Your task to perform on an android device: Open Google Chrome and click the shortcut for Amazon.com Image 0: 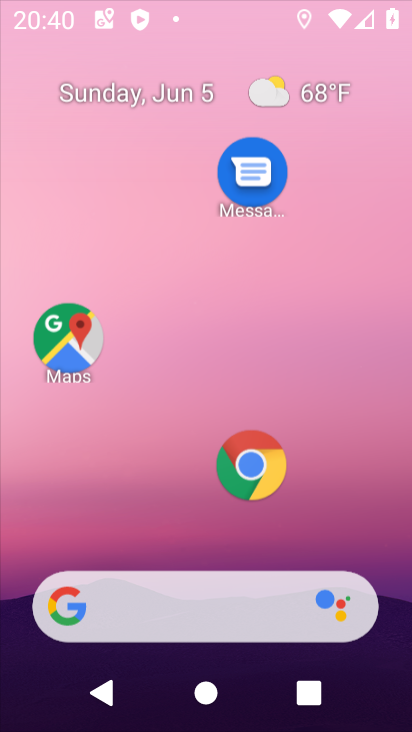
Step 0: click (11, 170)
Your task to perform on an android device: Open Google Chrome and click the shortcut for Amazon.com Image 1: 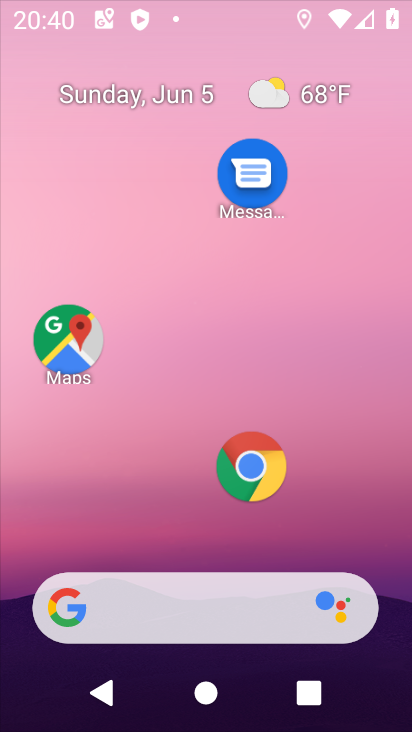
Step 1: drag from (206, 472) to (179, 8)
Your task to perform on an android device: Open Google Chrome and click the shortcut for Amazon.com Image 2: 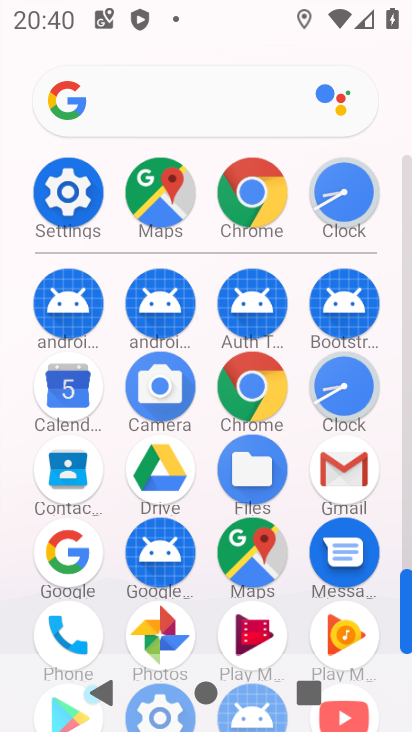
Step 2: click (269, 378)
Your task to perform on an android device: Open Google Chrome and click the shortcut for Amazon.com Image 3: 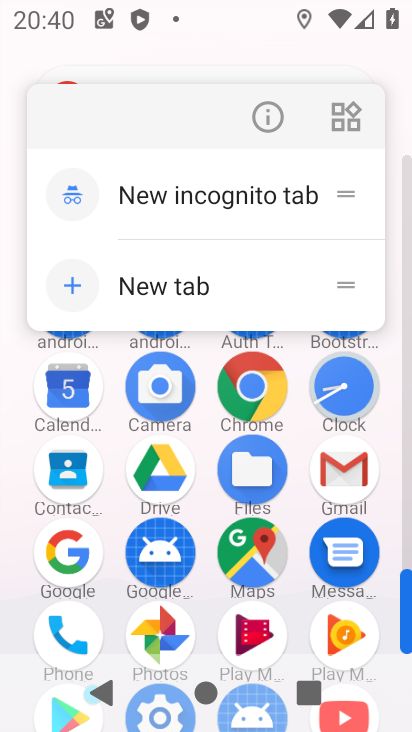
Step 3: click (273, 124)
Your task to perform on an android device: Open Google Chrome and click the shortcut for Amazon.com Image 4: 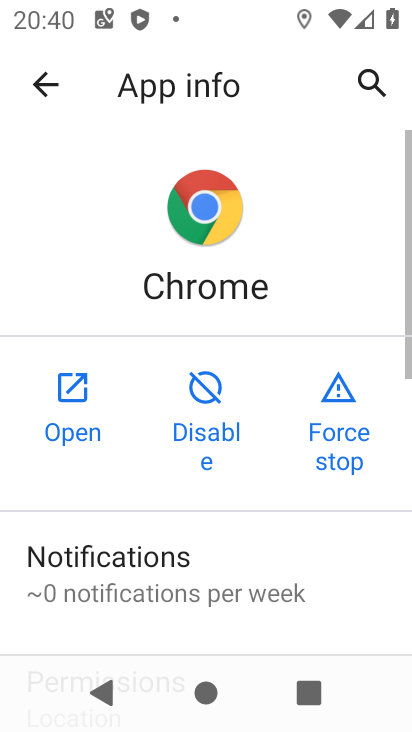
Step 4: click (83, 387)
Your task to perform on an android device: Open Google Chrome and click the shortcut for Amazon.com Image 5: 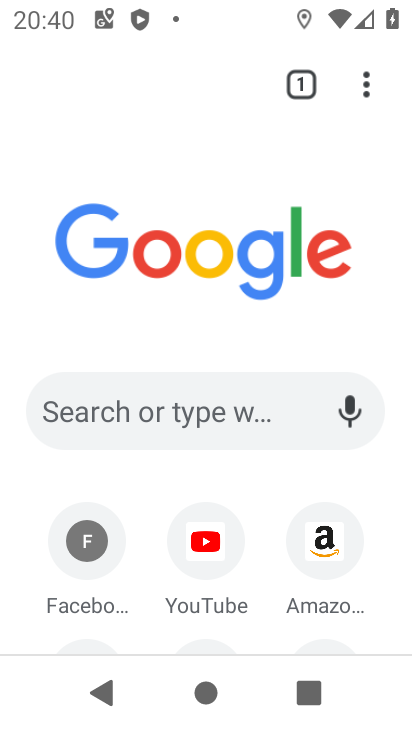
Step 5: drag from (242, 449) to (237, 194)
Your task to perform on an android device: Open Google Chrome and click the shortcut for Amazon.com Image 6: 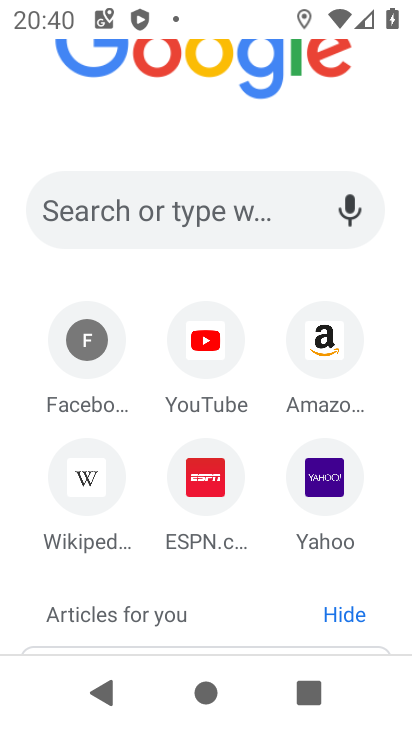
Step 6: drag from (239, 153) to (351, 727)
Your task to perform on an android device: Open Google Chrome and click the shortcut for Amazon.com Image 7: 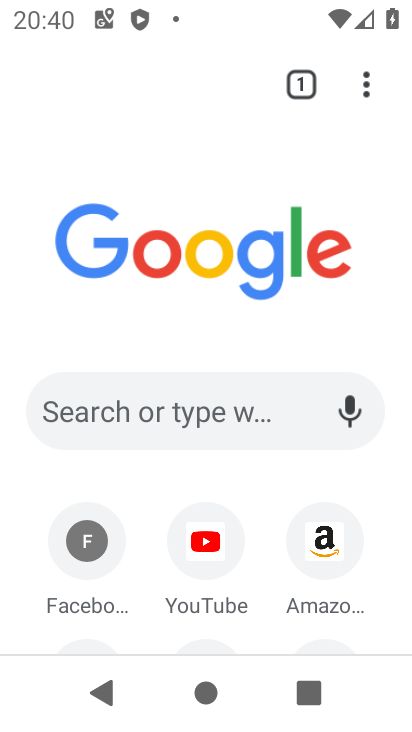
Step 7: click (366, 89)
Your task to perform on an android device: Open Google Chrome and click the shortcut for Amazon.com Image 8: 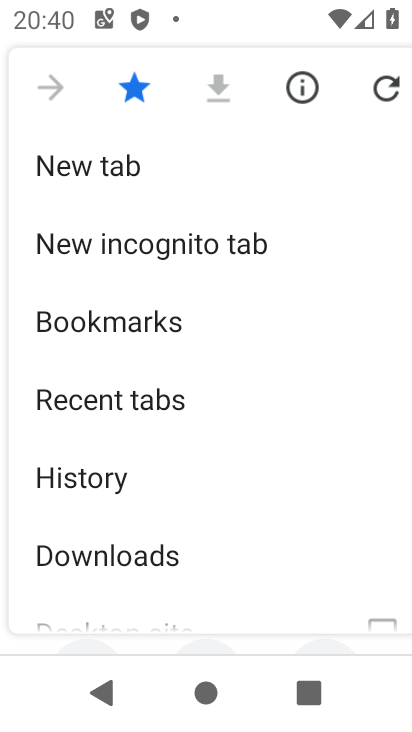
Step 8: drag from (187, 521) to (229, 148)
Your task to perform on an android device: Open Google Chrome and click the shortcut for Amazon.com Image 9: 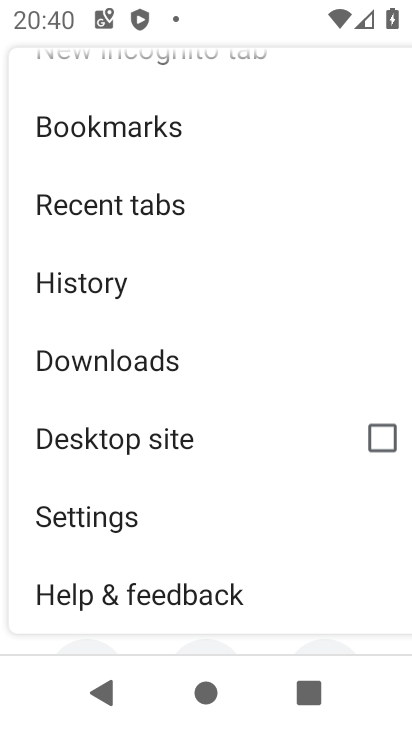
Step 9: drag from (174, 558) to (297, 165)
Your task to perform on an android device: Open Google Chrome and click the shortcut for Amazon.com Image 10: 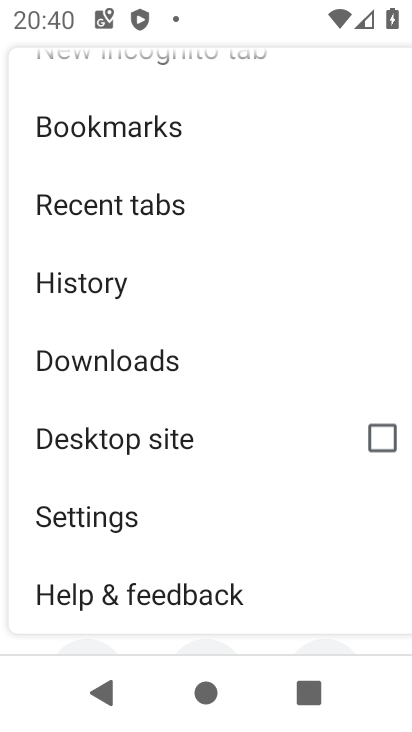
Step 10: drag from (206, 536) to (273, 243)
Your task to perform on an android device: Open Google Chrome and click the shortcut for Amazon.com Image 11: 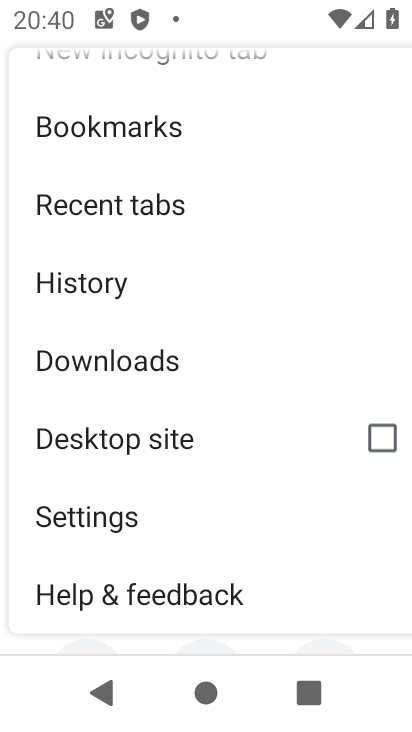
Step 11: drag from (216, 258) to (404, 470)
Your task to perform on an android device: Open Google Chrome and click the shortcut for Amazon.com Image 12: 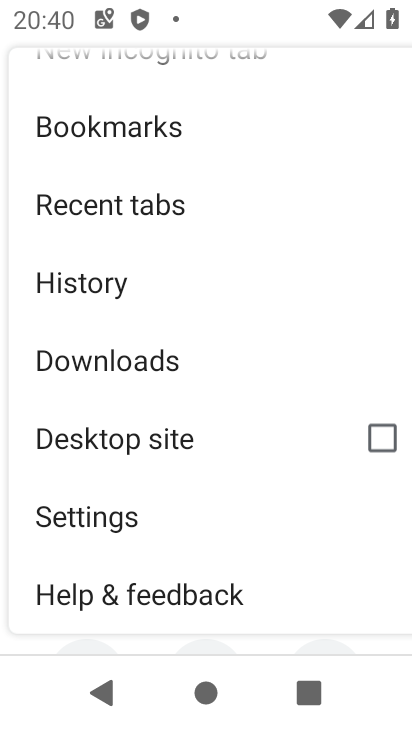
Step 12: click (47, 79)
Your task to perform on an android device: Open Google Chrome and click the shortcut for Amazon.com Image 13: 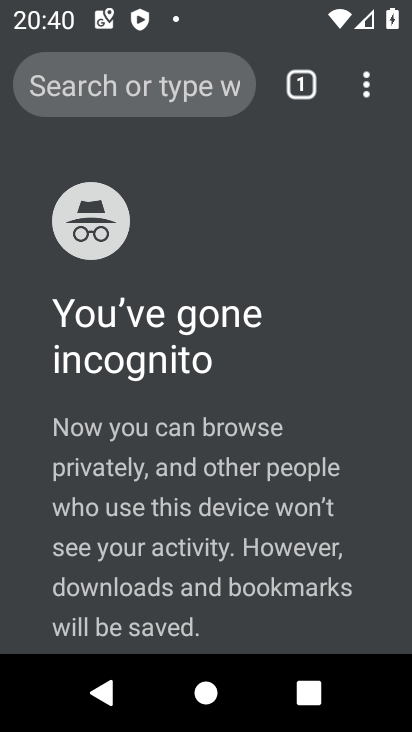
Step 13: click (315, 84)
Your task to perform on an android device: Open Google Chrome and click the shortcut for Amazon.com Image 14: 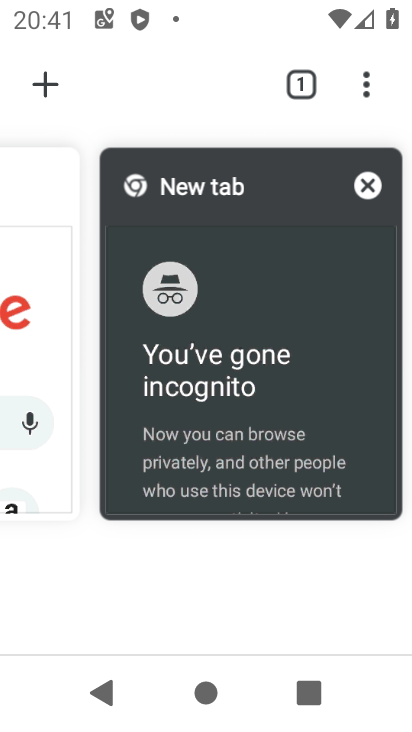
Step 14: click (367, 185)
Your task to perform on an android device: Open Google Chrome and click the shortcut for Amazon.com Image 15: 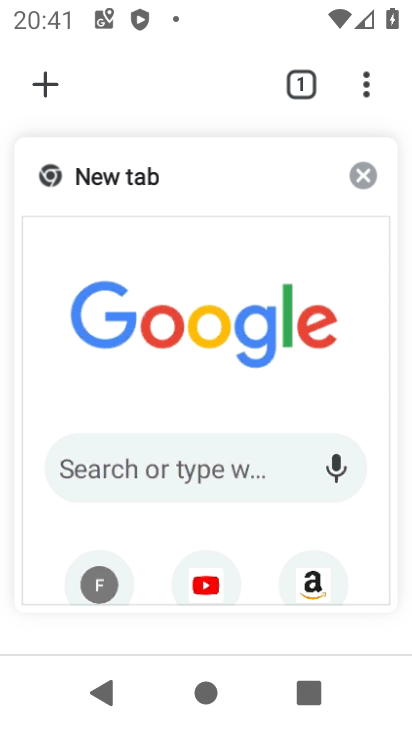
Step 15: click (252, 390)
Your task to perform on an android device: Open Google Chrome and click the shortcut for Amazon.com Image 16: 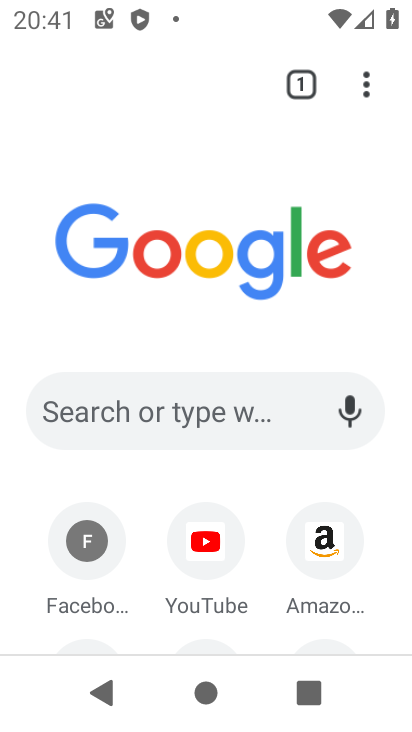
Step 16: drag from (246, 401) to (375, 18)
Your task to perform on an android device: Open Google Chrome and click the shortcut for Amazon.com Image 17: 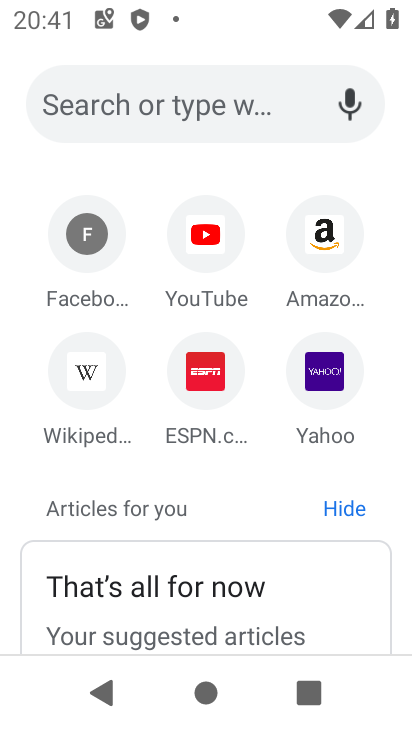
Step 17: click (323, 229)
Your task to perform on an android device: Open Google Chrome and click the shortcut for Amazon.com Image 18: 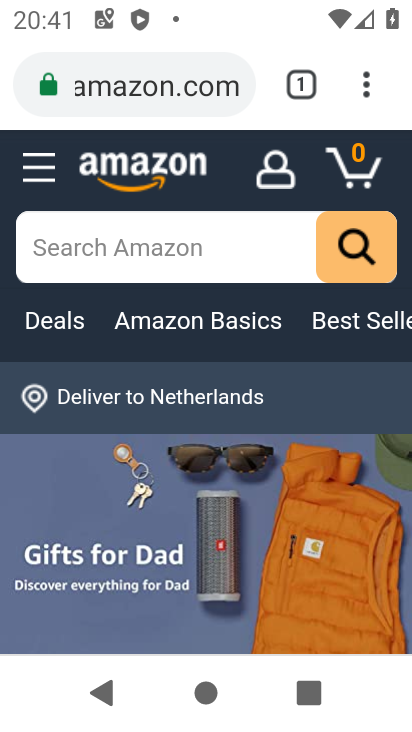
Step 18: task complete